Your task to perform on an android device: delete the emails in spam in the gmail app Image 0: 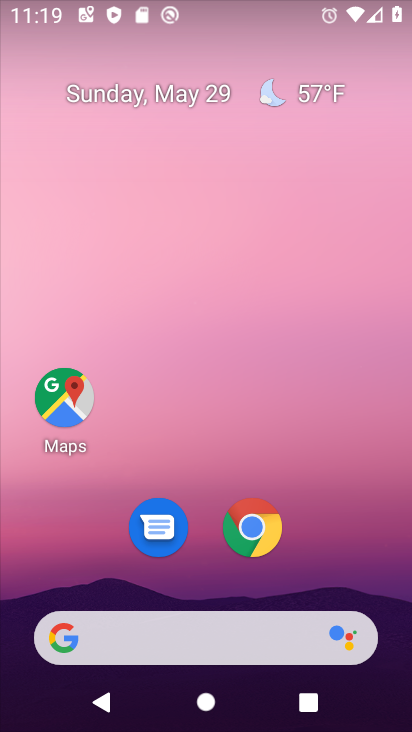
Step 0: drag from (169, 441) to (178, 24)
Your task to perform on an android device: delete the emails in spam in the gmail app Image 1: 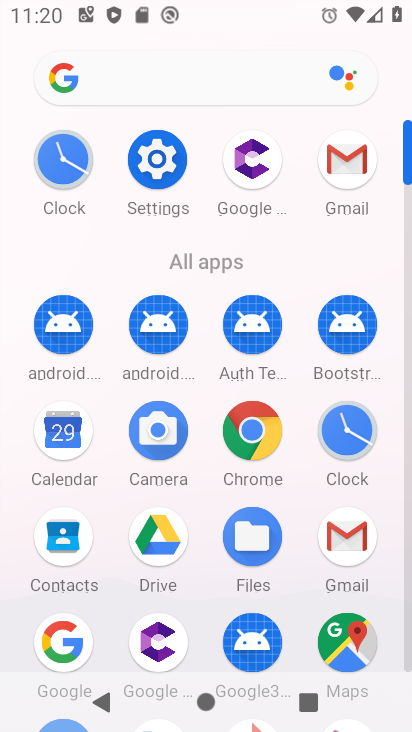
Step 1: click (341, 152)
Your task to perform on an android device: delete the emails in spam in the gmail app Image 2: 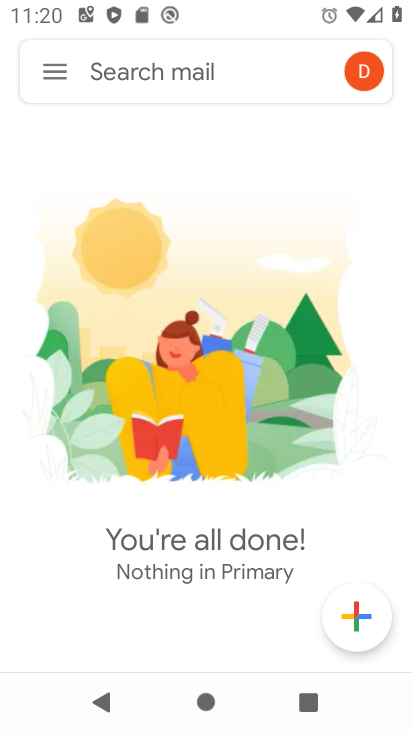
Step 2: click (42, 77)
Your task to perform on an android device: delete the emails in spam in the gmail app Image 3: 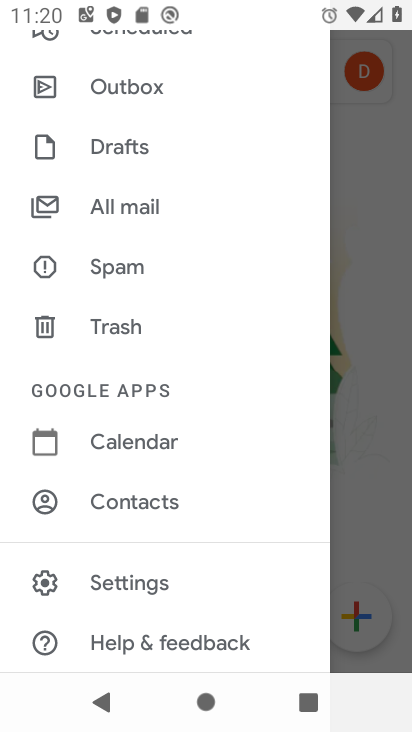
Step 3: click (129, 272)
Your task to perform on an android device: delete the emails in spam in the gmail app Image 4: 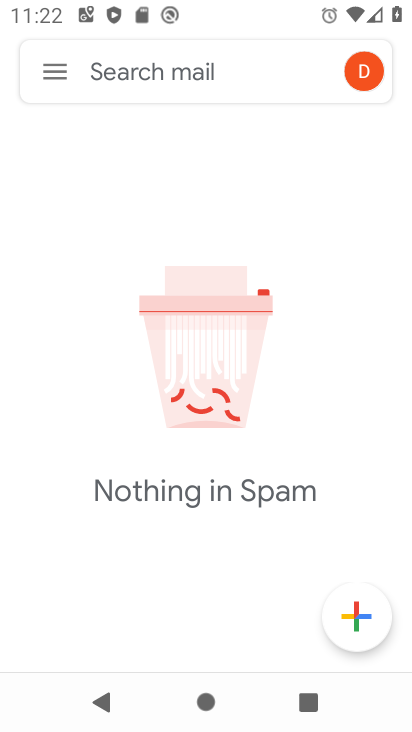
Step 4: task complete